Your task to perform on an android device: allow cookies in the chrome app Image 0: 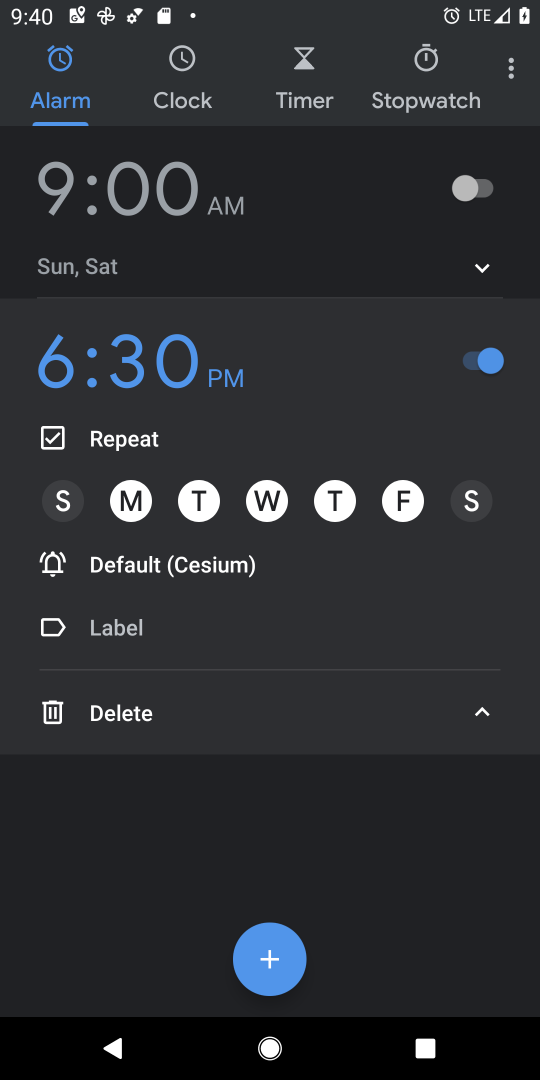
Step 0: press home button
Your task to perform on an android device: allow cookies in the chrome app Image 1: 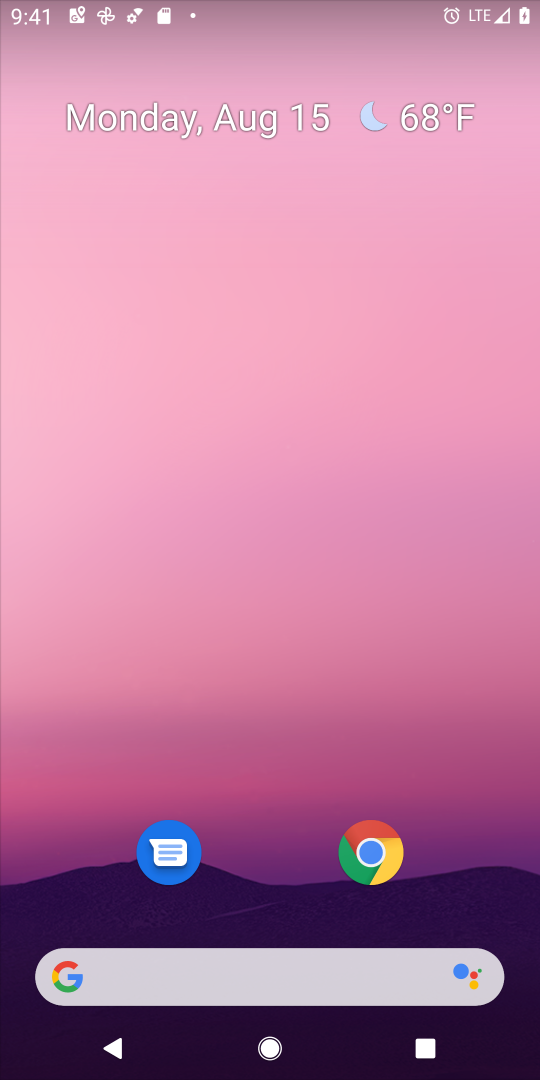
Step 1: click (370, 851)
Your task to perform on an android device: allow cookies in the chrome app Image 2: 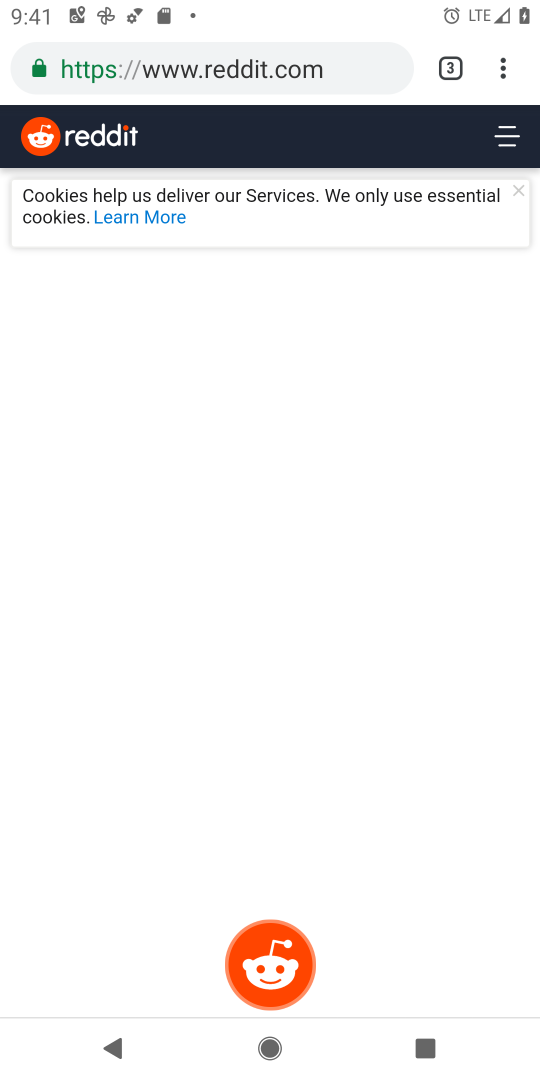
Step 2: drag from (504, 69) to (323, 911)
Your task to perform on an android device: allow cookies in the chrome app Image 3: 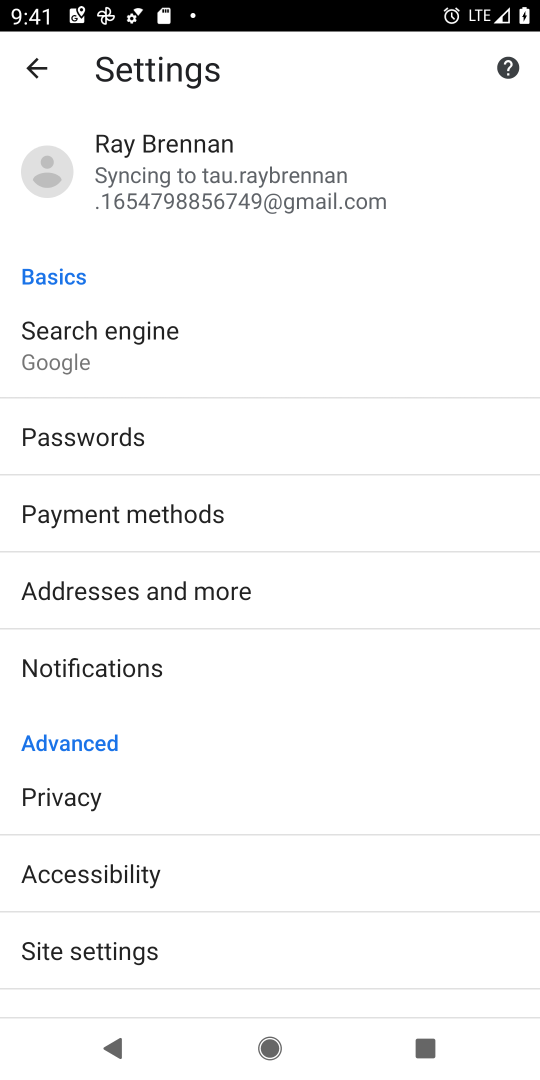
Step 3: drag from (147, 889) to (171, 687)
Your task to perform on an android device: allow cookies in the chrome app Image 4: 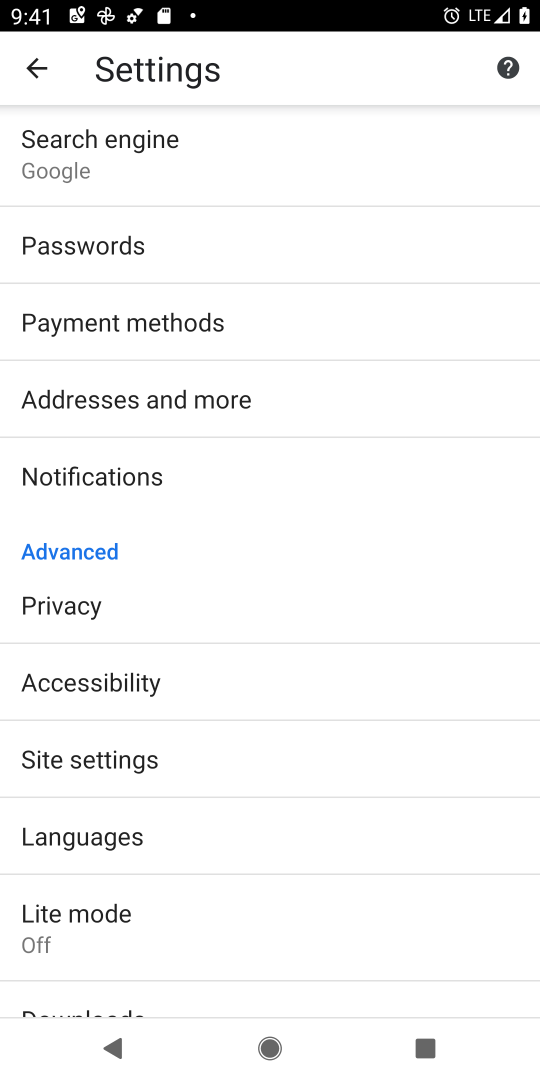
Step 4: click (90, 767)
Your task to perform on an android device: allow cookies in the chrome app Image 5: 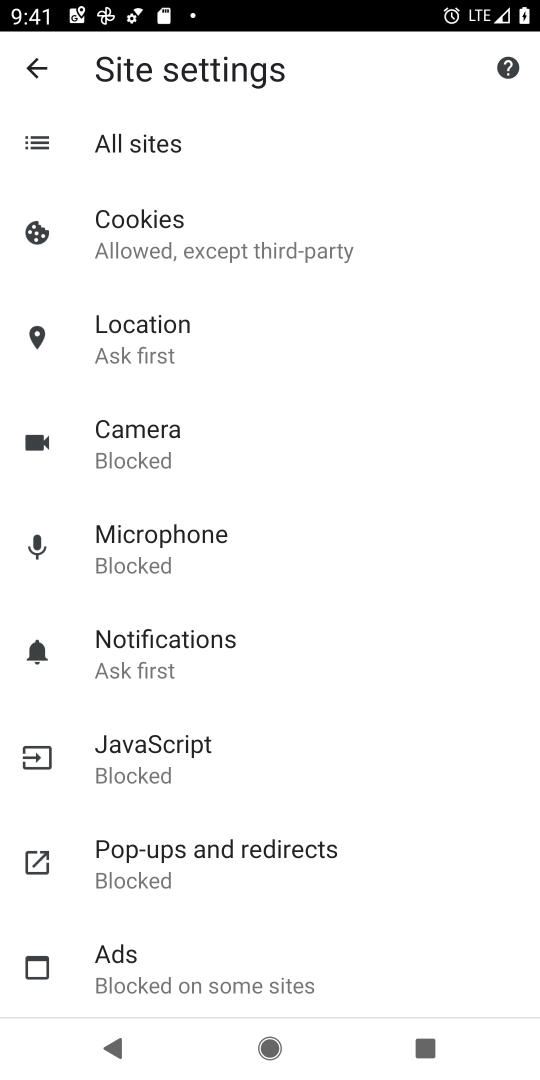
Step 5: click (254, 256)
Your task to perform on an android device: allow cookies in the chrome app Image 6: 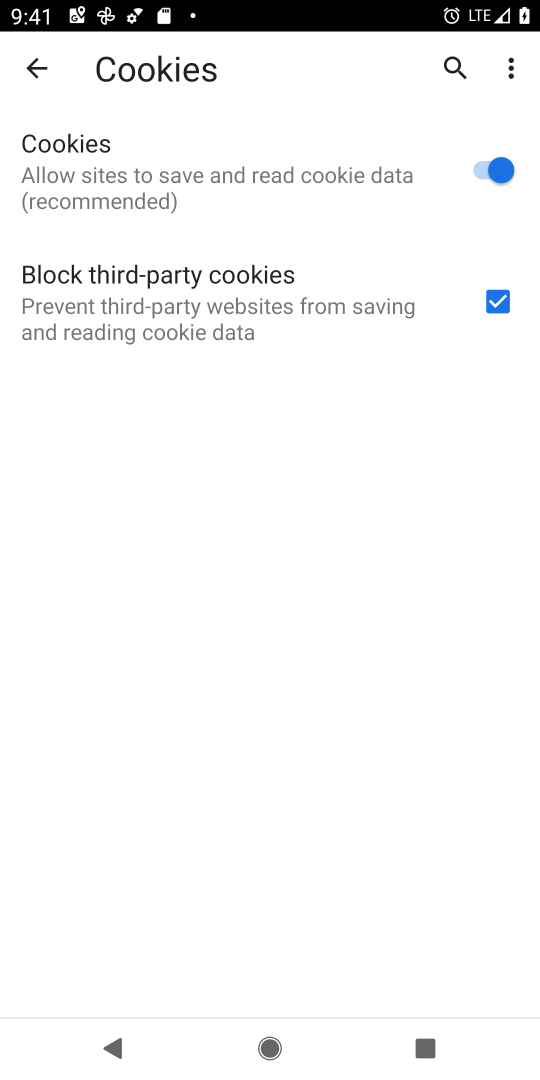
Step 6: task complete